Your task to perform on an android device: turn off location history Image 0: 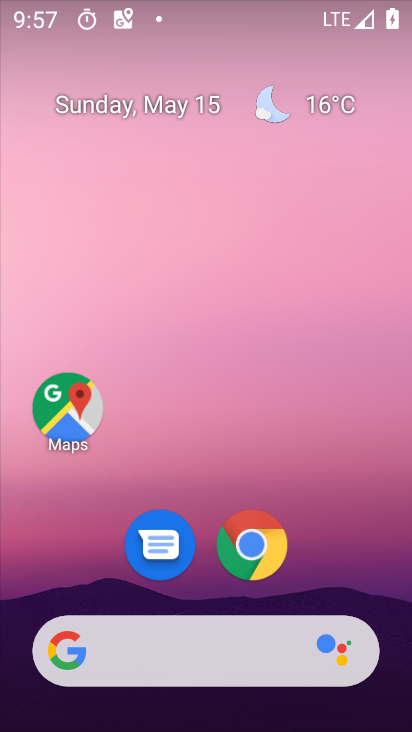
Step 0: drag from (315, 572) to (268, 6)
Your task to perform on an android device: turn off location history Image 1: 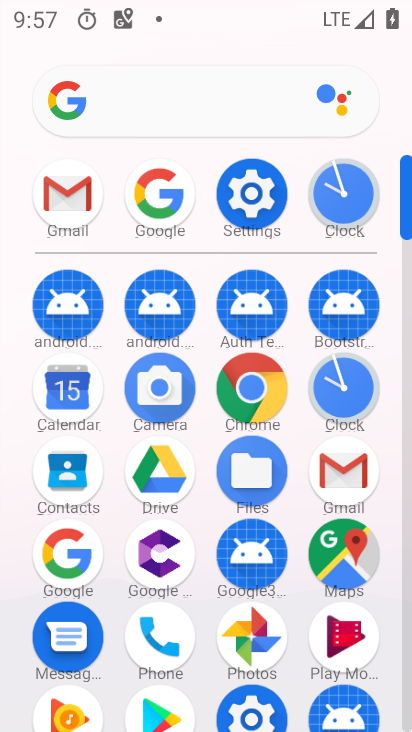
Step 1: click (251, 192)
Your task to perform on an android device: turn off location history Image 2: 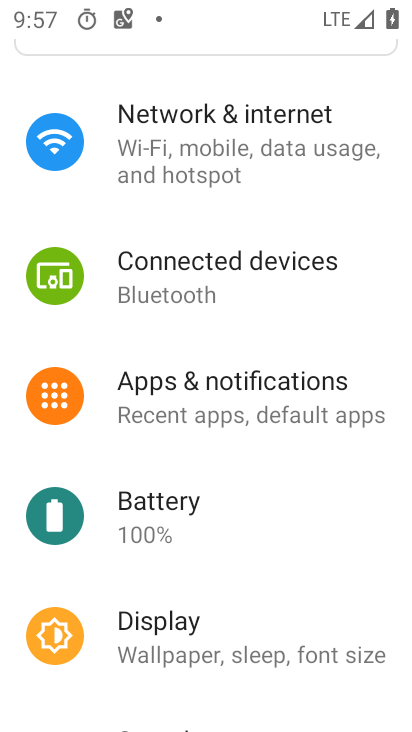
Step 2: drag from (220, 562) to (241, 462)
Your task to perform on an android device: turn off location history Image 3: 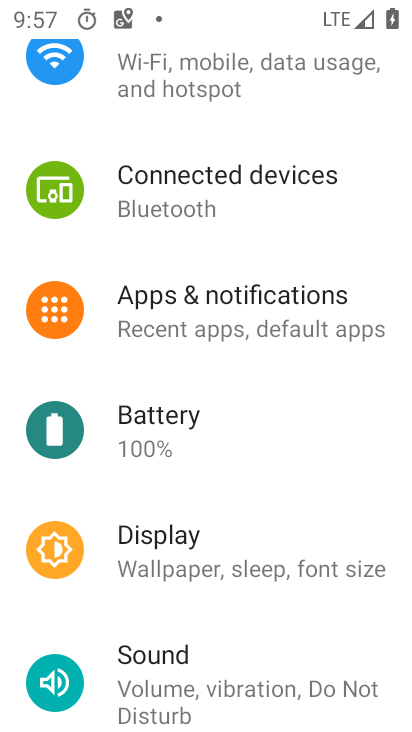
Step 3: drag from (221, 588) to (245, 466)
Your task to perform on an android device: turn off location history Image 4: 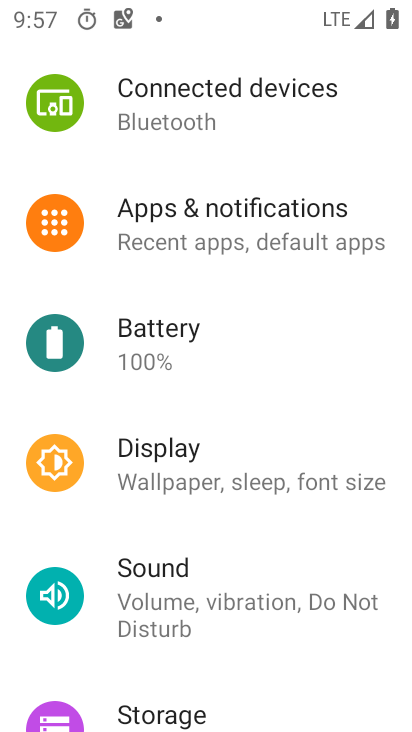
Step 4: drag from (241, 648) to (276, 496)
Your task to perform on an android device: turn off location history Image 5: 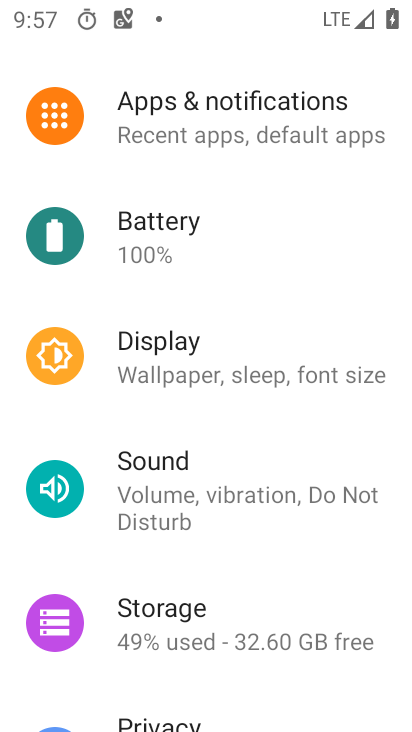
Step 5: drag from (248, 681) to (285, 471)
Your task to perform on an android device: turn off location history Image 6: 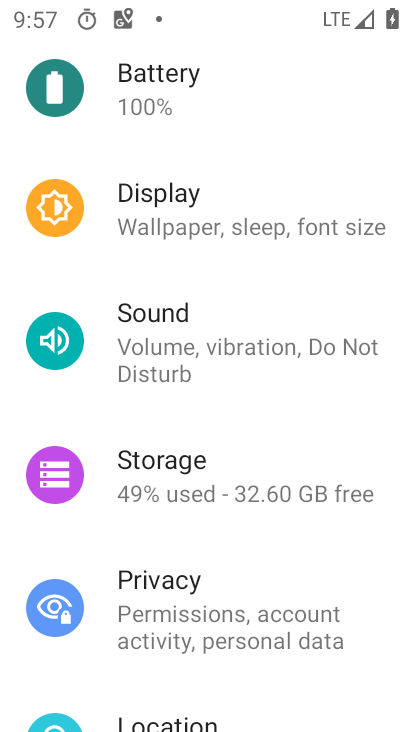
Step 6: drag from (239, 547) to (246, 362)
Your task to perform on an android device: turn off location history Image 7: 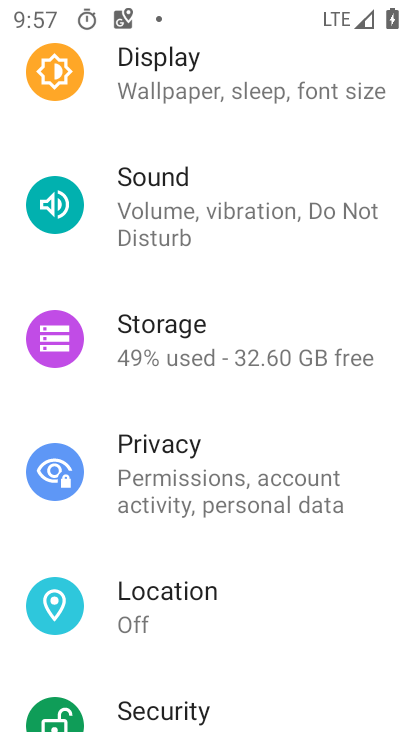
Step 7: drag from (154, 548) to (239, 414)
Your task to perform on an android device: turn off location history Image 8: 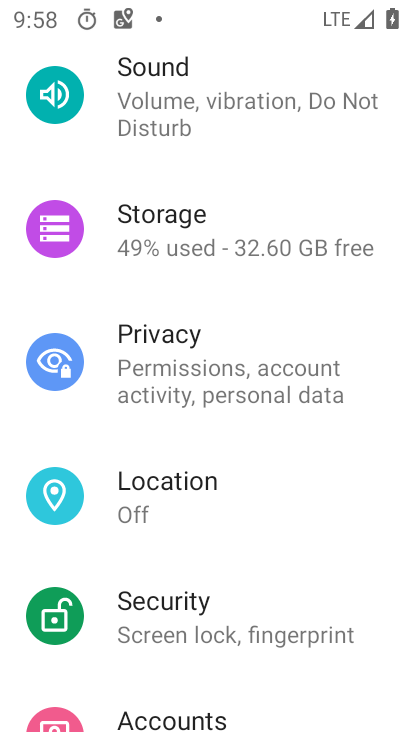
Step 8: click (198, 479)
Your task to perform on an android device: turn off location history Image 9: 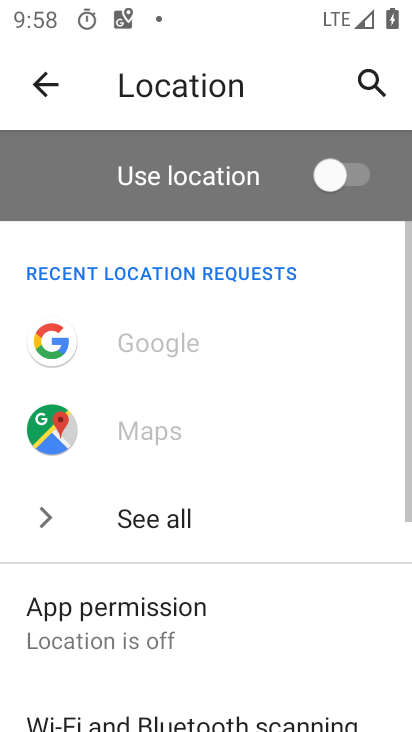
Step 9: drag from (176, 652) to (264, 507)
Your task to perform on an android device: turn off location history Image 10: 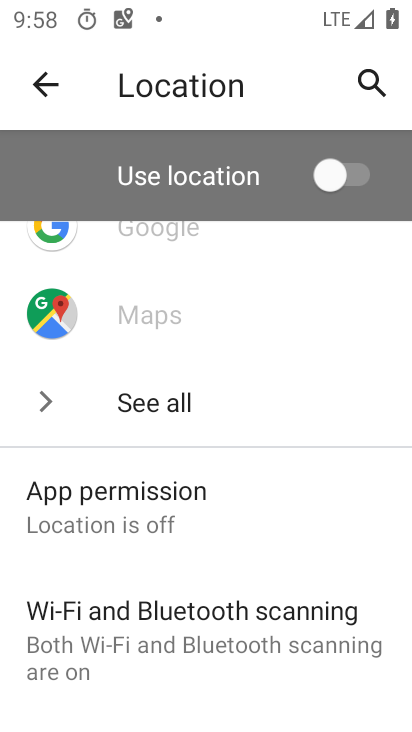
Step 10: drag from (186, 670) to (293, 519)
Your task to perform on an android device: turn off location history Image 11: 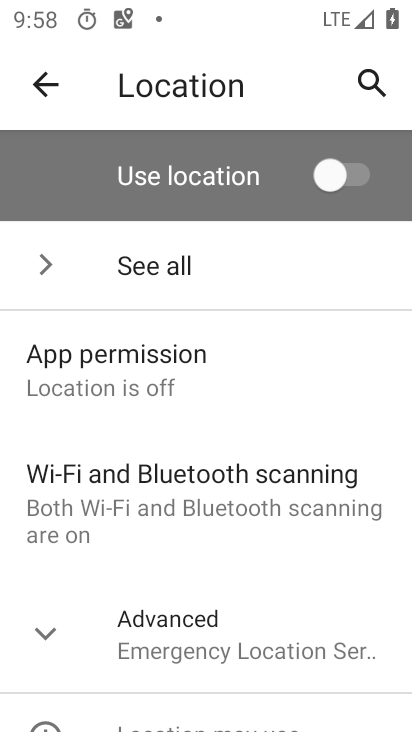
Step 11: click (237, 633)
Your task to perform on an android device: turn off location history Image 12: 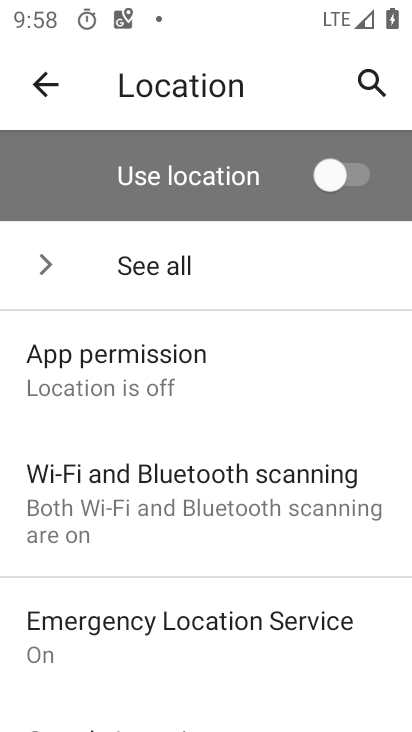
Step 12: task complete